Your task to perform on an android device: Open network settings Image 0: 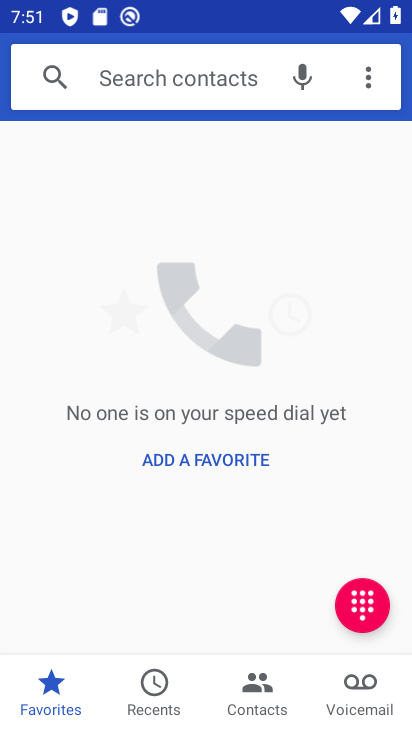
Step 0: press home button
Your task to perform on an android device: Open network settings Image 1: 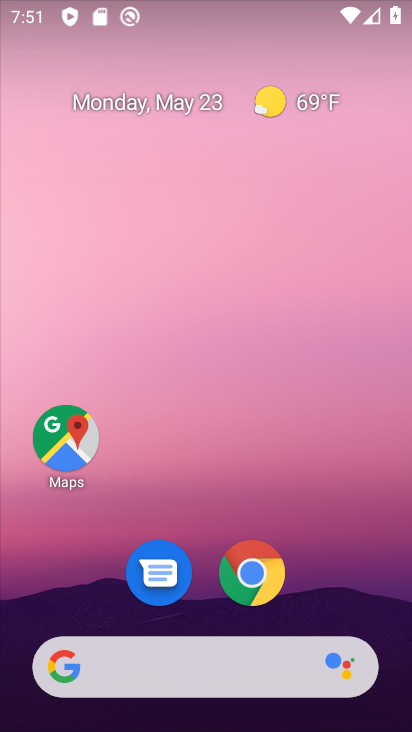
Step 1: drag from (190, 609) to (257, 56)
Your task to perform on an android device: Open network settings Image 2: 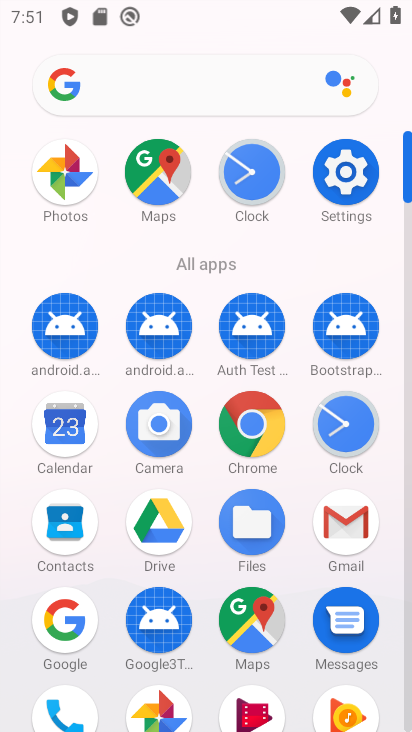
Step 2: click (347, 180)
Your task to perform on an android device: Open network settings Image 3: 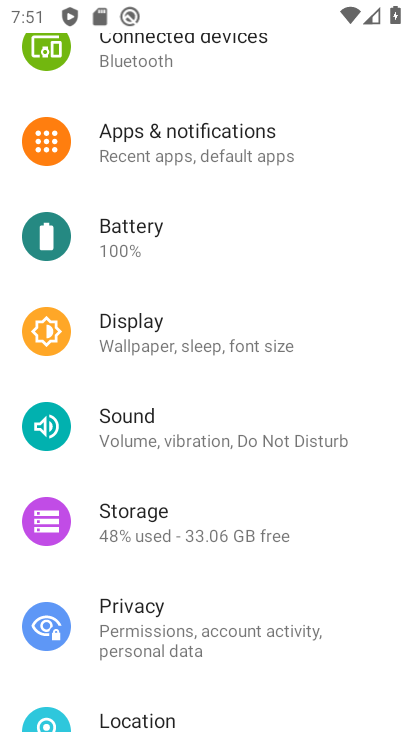
Step 3: drag from (212, 175) to (230, 671)
Your task to perform on an android device: Open network settings Image 4: 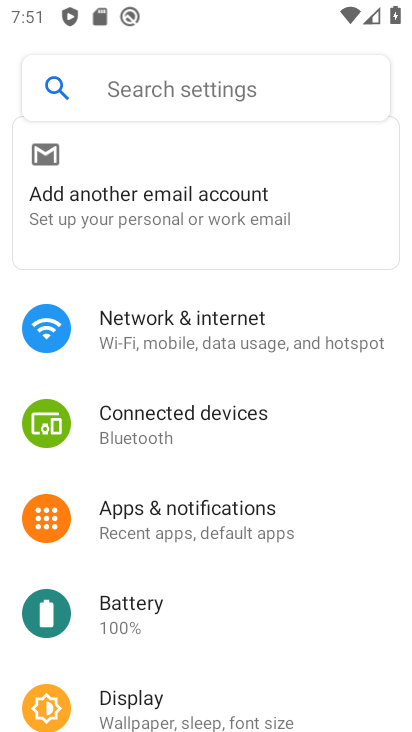
Step 4: click (160, 369)
Your task to perform on an android device: Open network settings Image 5: 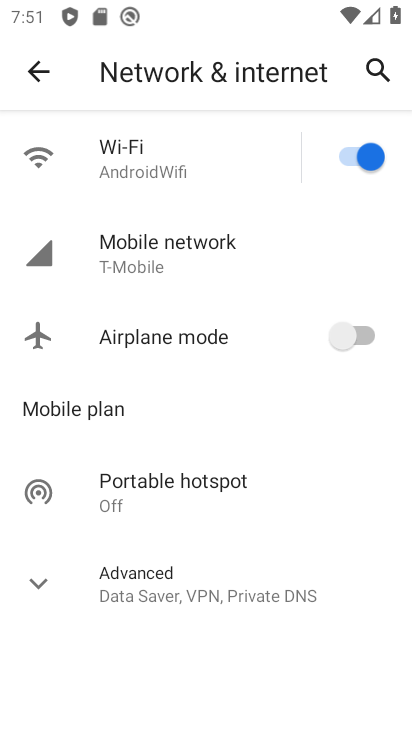
Step 5: click (133, 258)
Your task to perform on an android device: Open network settings Image 6: 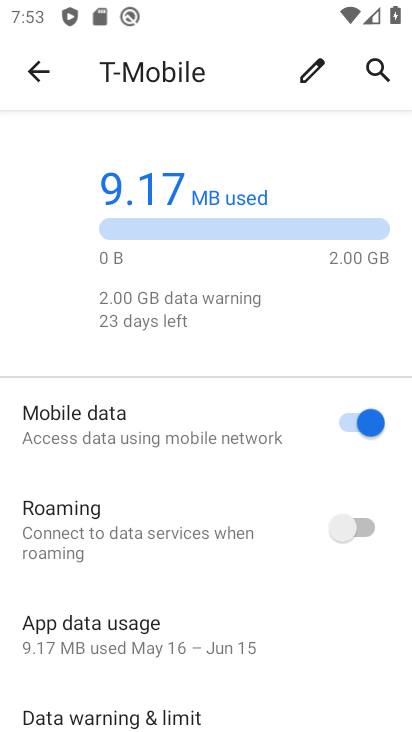
Step 6: task complete